Your task to perform on an android device: Open ESPN.com Image 0: 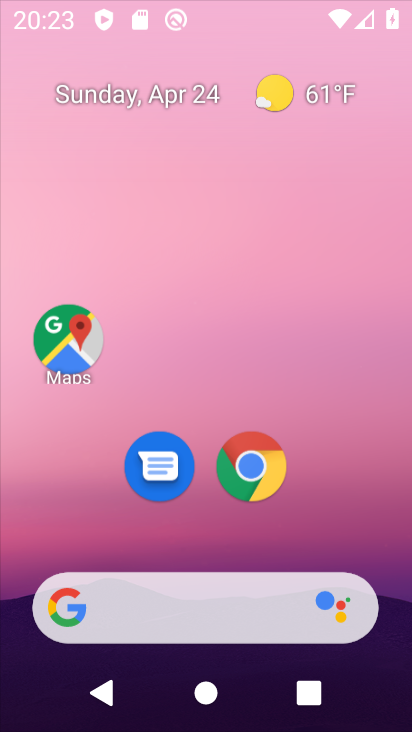
Step 0: drag from (279, 46) to (365, 96)
Your task to perform on an android device: Open ESPN.com Image 1: 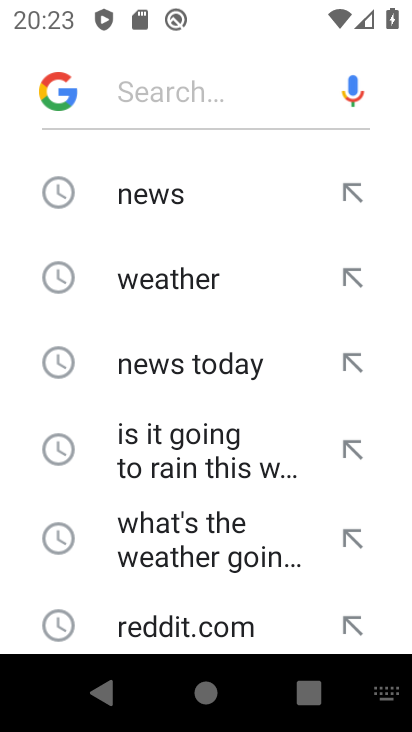
Step 1: press home button
Your task to perform on an android device: Open ESPN.com Image 2: 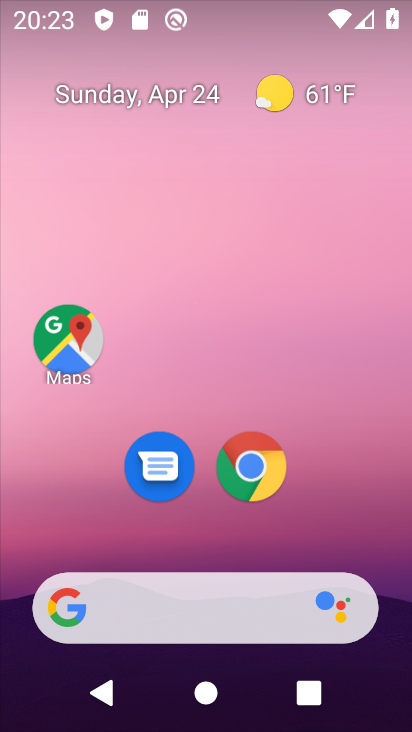
Step 2: click (240, 487)
Your task to perform on an android device: Open ESPN.com Image 3: 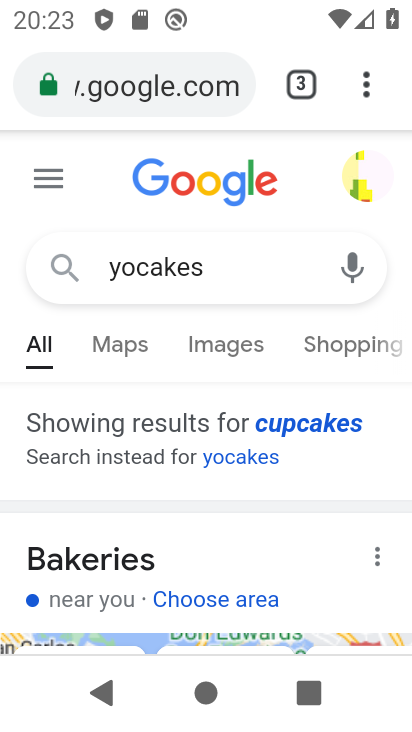
Step 3: click (125, 83)
Your task to perform on an android device: Open ESPN.com Image 4: 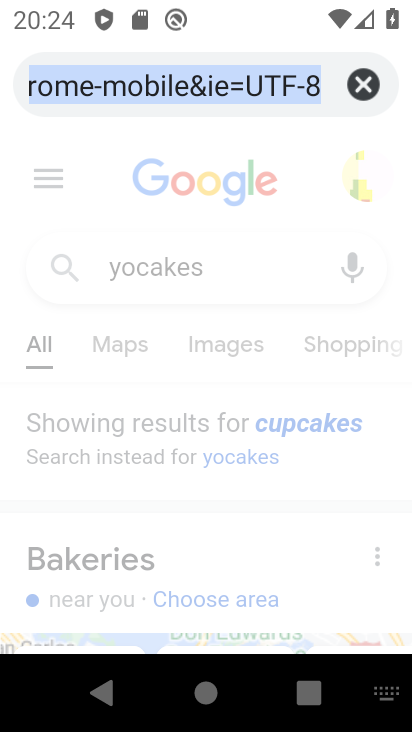
Step 4: type "ESPN.com"
Your task to perform on an android device: Open ESPN.com Image 5: 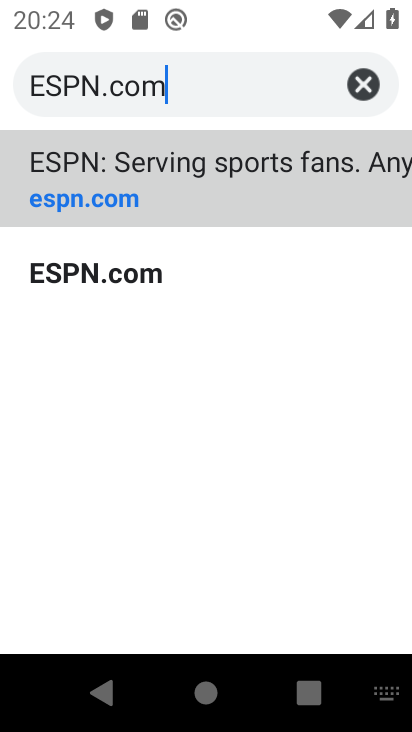
Step 5: click (179, 265)
Your task to perform on an android device: Open ESPN.com Image 6: 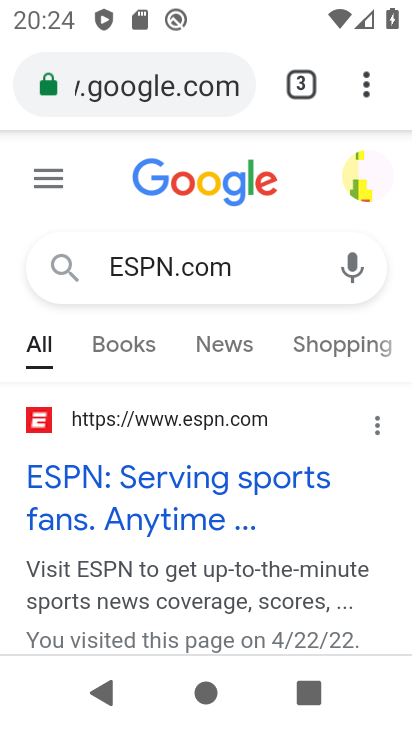
Step 6: task complete